Your task to perform on an android device: check battery use Image 0: 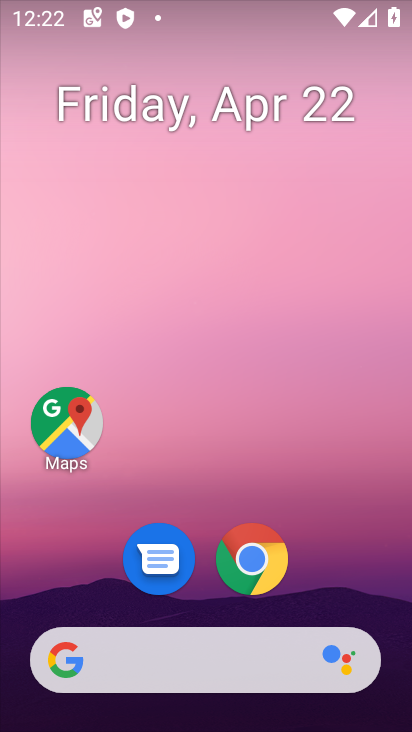
Step 0: drag from (359, 594) to (226, 74)
Your task to perform on an android device: check battery use Image 1: 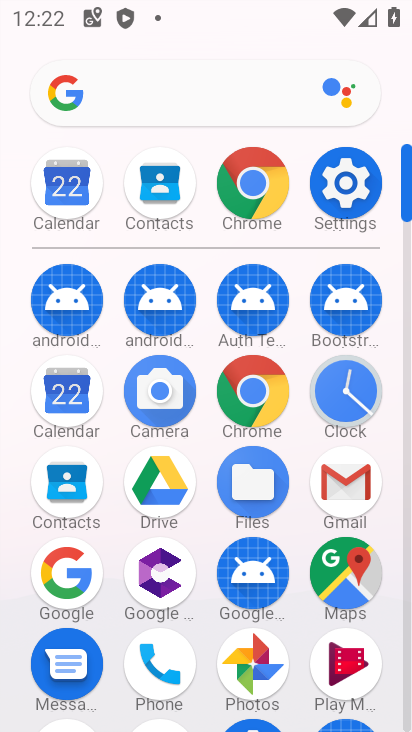
Step 1: click (355, 194)
Your task to perform on an android device: check battery use Image 2: 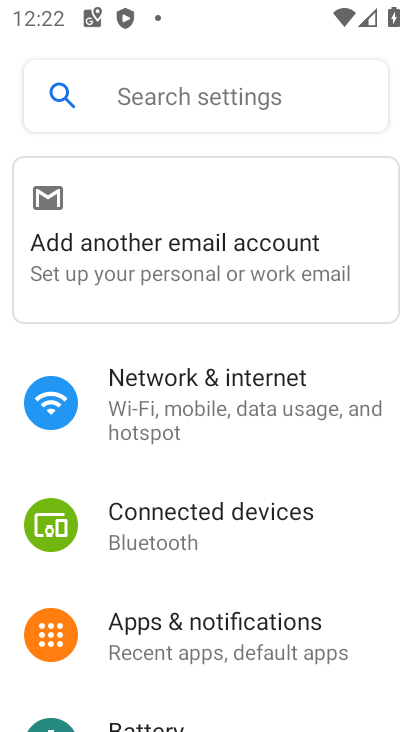
Step 2: drag from (202, 635) to (208, 153)
Your task to perform on an android device: check battery use Image 3: 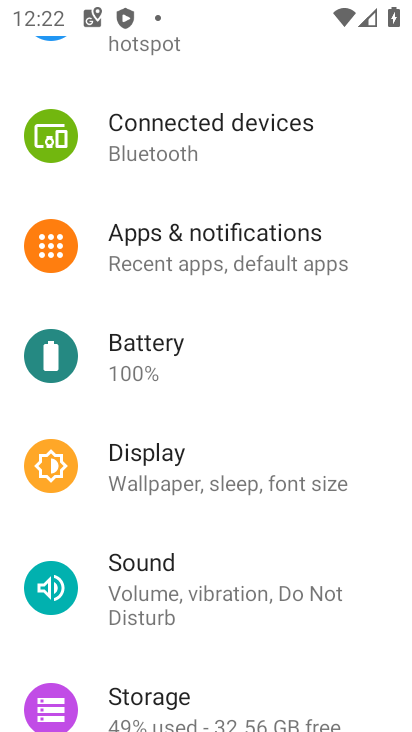
Step 3: click (187, 347)
Your task to perform on an android device: check battery use Image 4: 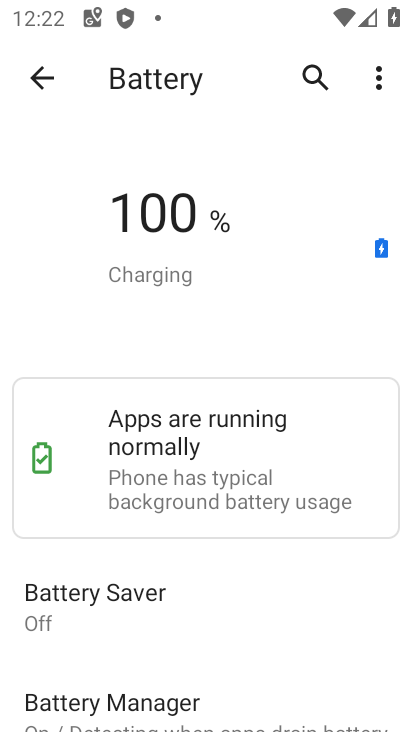
Step 4: click (384, 76)
Your task to perform on an android device: check battery use Image 5: 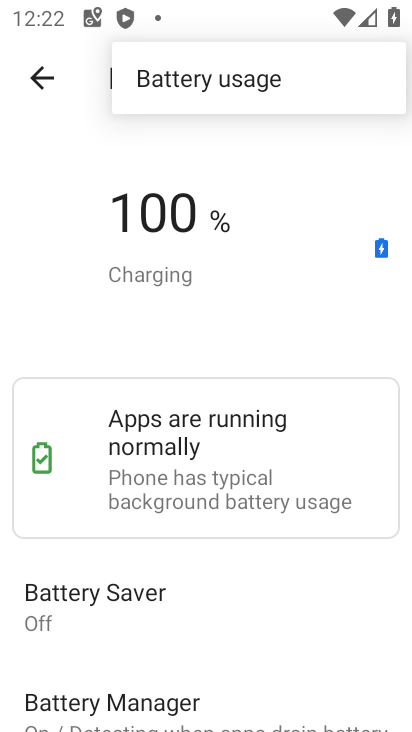
Step 5: click (218, 78)
Your task to perform on an android device: check battery use Image 6: 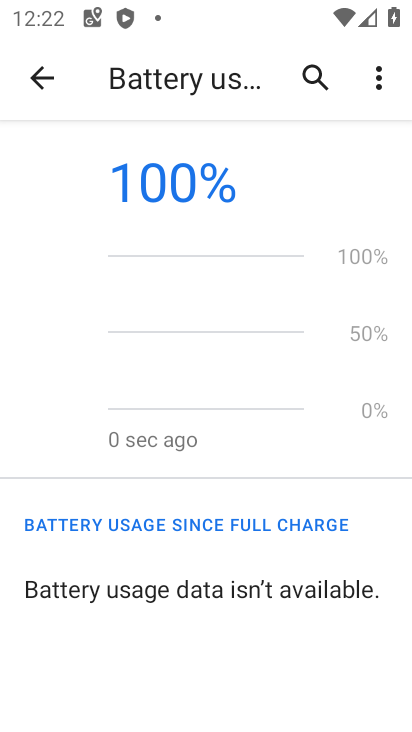
Step 6: task complete